Your task to perform on an android device: open the mobile data screen to see how much data has been used Image 0: 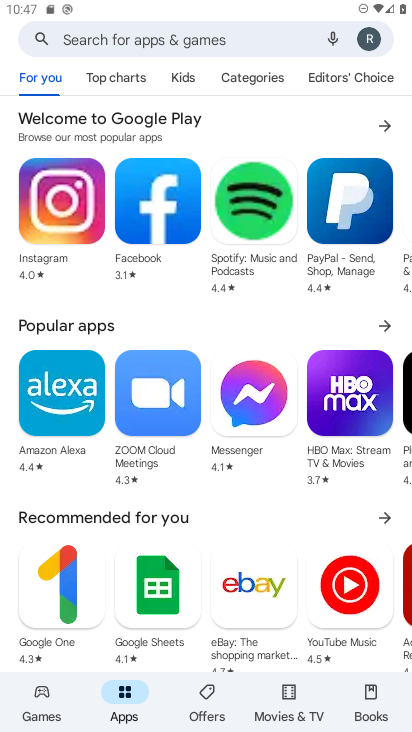
Step 0: press home button
Your task to perform on an android device: open the mobile data screen to see how much data has been used Image 1: 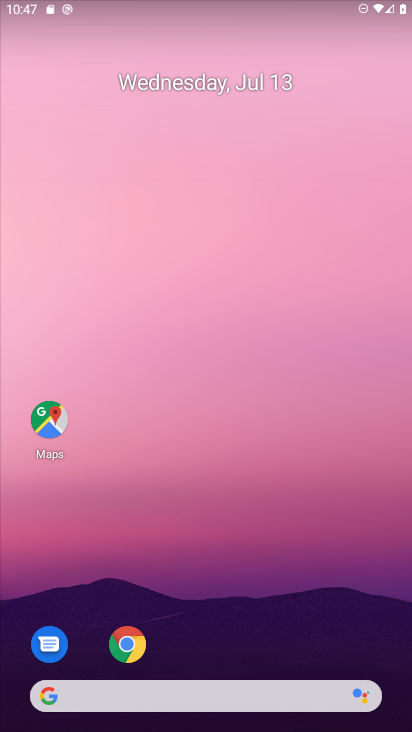
Step 1: drag from (241, 574) to (131, 93)
Your task to perform on an android device: open the mobile data screen to see how much data has been used Image 2: 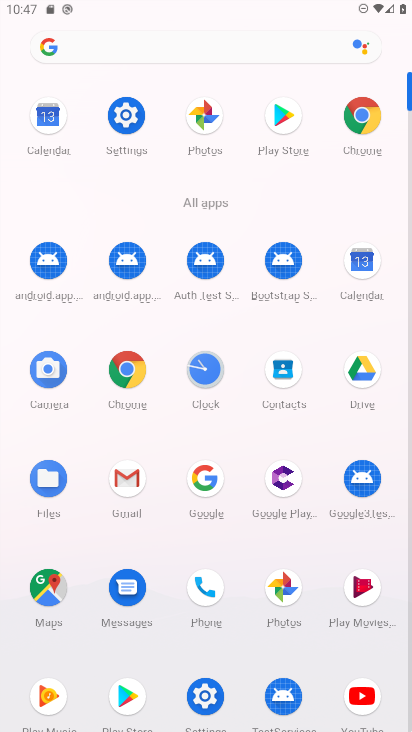
Step 2: click (128, 111)
Your task to perform on an android device: open the mobile data screen to see how much data has been used Image 3: 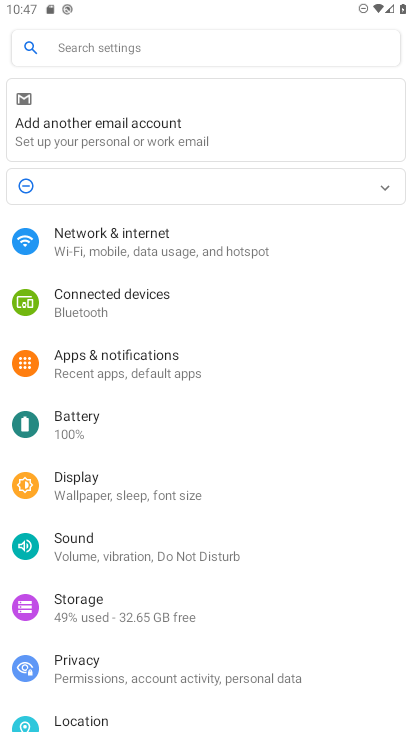
Step 3: click (116, 234)
Your task to perform on an android device: open the mobile data screen to see how much data has been used Image 4: 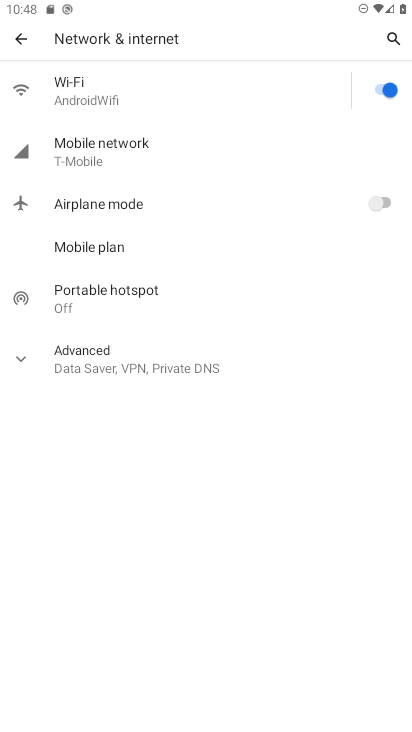
Step 4: click (93, 138)
Your task to perform on an android device: open the mobile data screen to see how much data has been used Image 5: 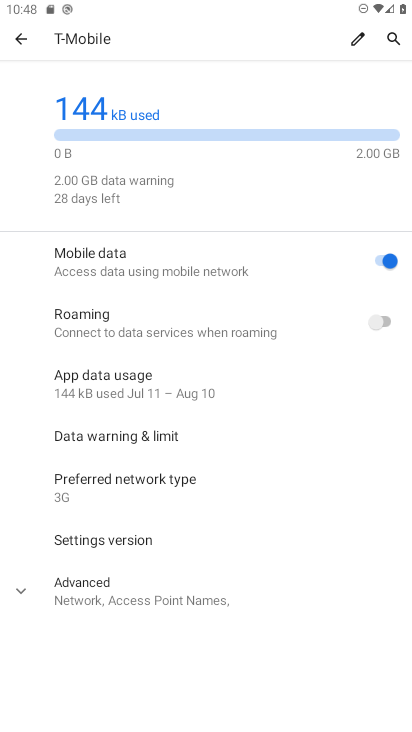
Step 5: task complete